Your task to perform on an android device: Open Google Image 0: 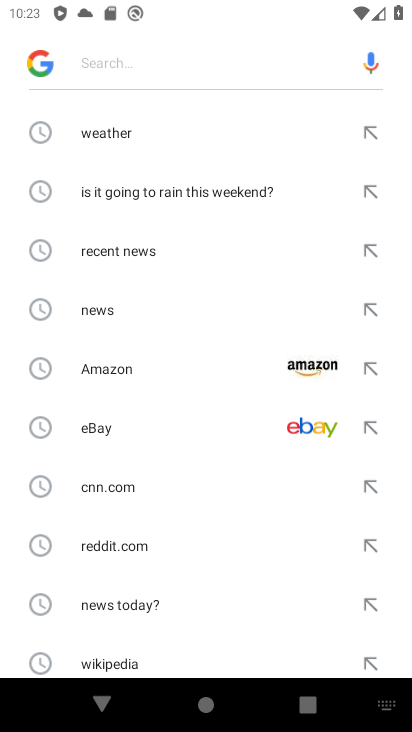
Step 0: press home button
Your task to perform on an android device: Open Google Image 1: 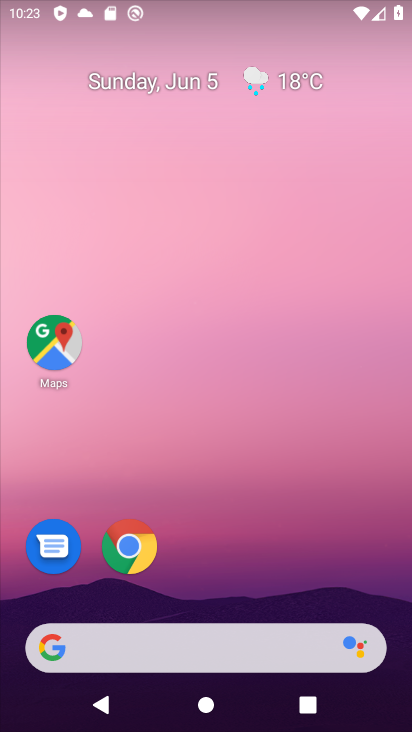
Step 1: drag from (297, 580) to (347, 5)
Your task to perform on an android device: Open Google Image 2: 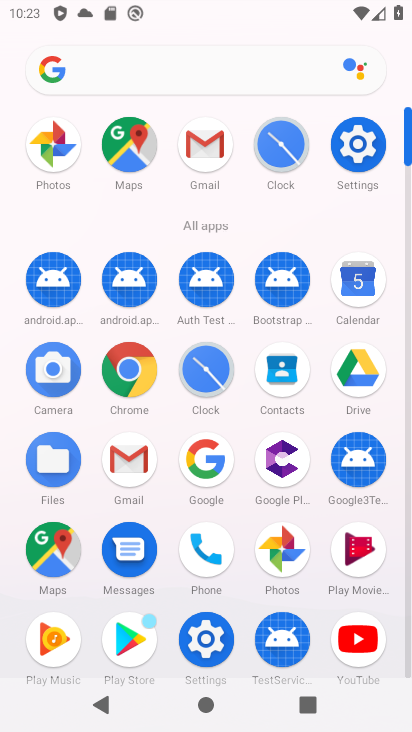
Step 2: click (215, 460)
Your task to perform on an android device: Open Google Image 3: 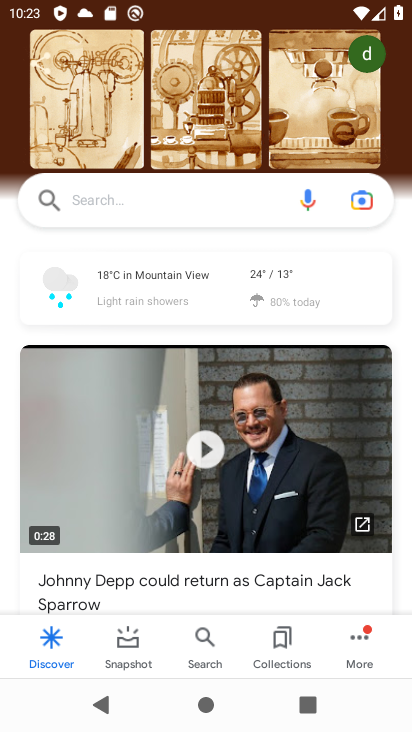
Step 3: task complete